Your task to perform on an android device: toggle wifi Image 0: 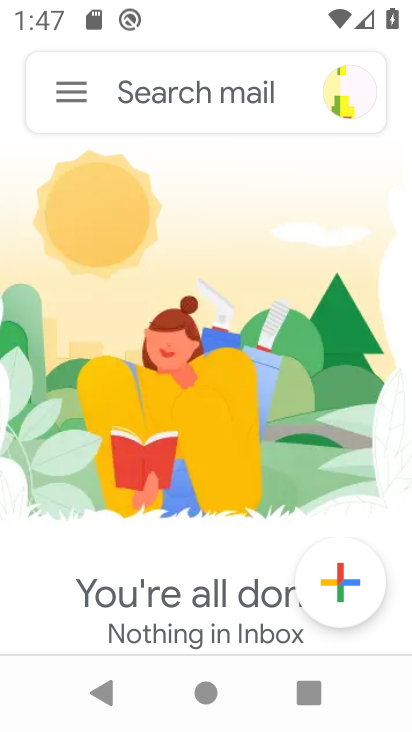
Step 0: press home button
Your task to perform on an android device: toggle wifi Image 1: 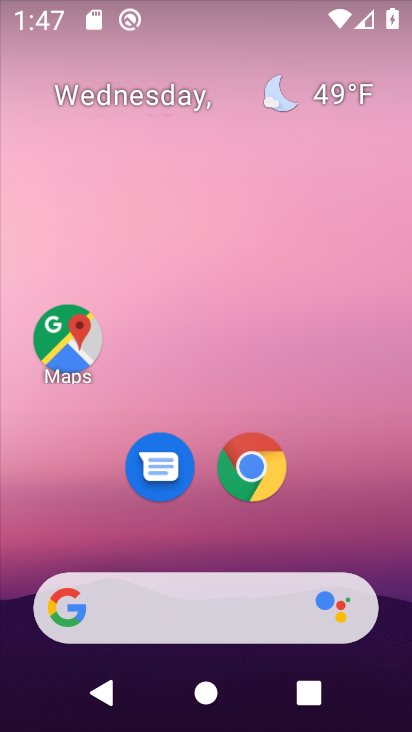
Step 1: drag from (395, 610) to (340, 246)
Your task to perform on an android device: toggle wifi Image 2: 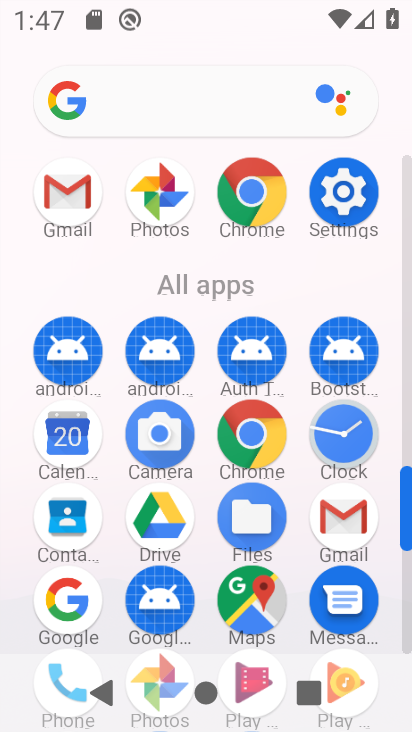
Step 2: click (404, 635)
Your task to perform on an android device: toggle wifi Image 3: 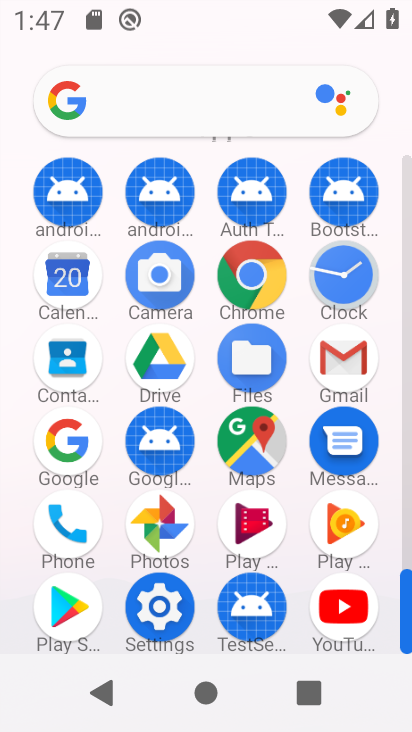
Step 3: click (165, 607)
Your task to perform on an android device: toggle wifi Image 4: 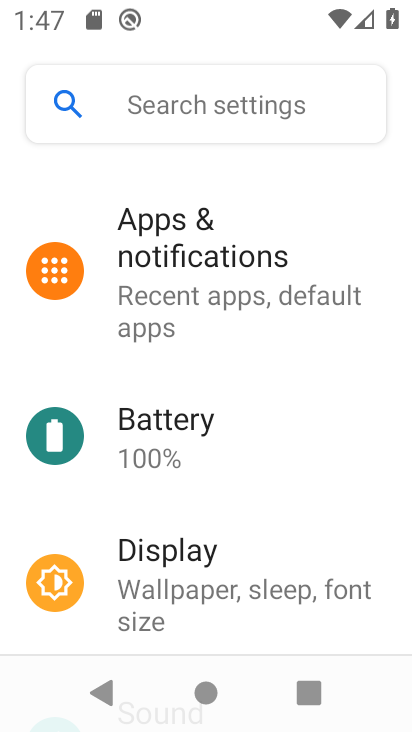
Step 4: drag from (355, 244) to (346, 476)
Your task to perform on an android device: toggle wifi Image 5: 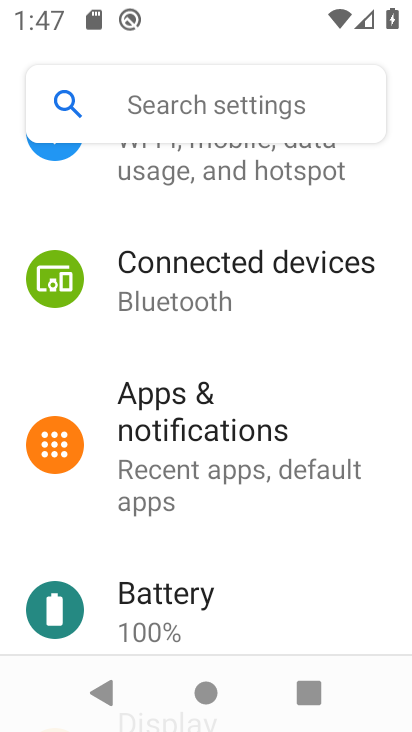
Step 5: drag from (336, 290) to (306, 531)
Your task to perform on an android device: toggle wifi Image 6: 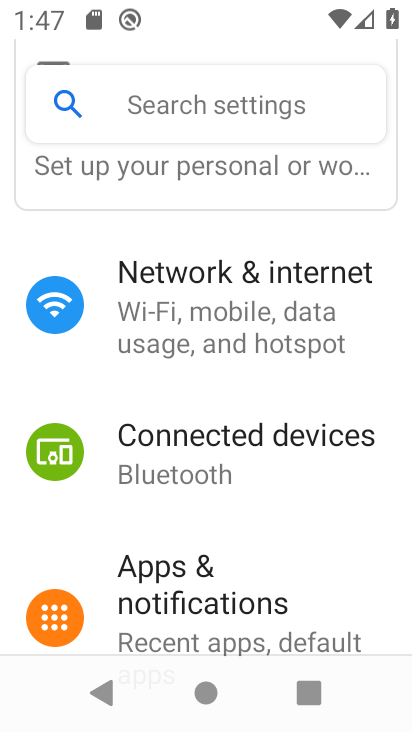
Step 6: click (192, 279)
Your task to perform on an android device: toggle wifi Image 7: 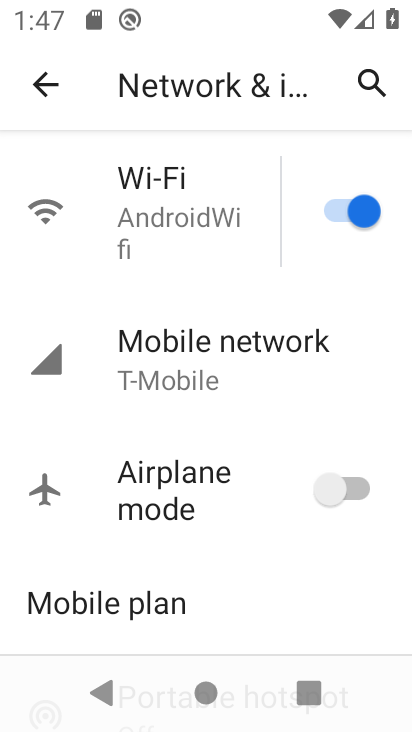
Step 7: click (325, 204)
Your task to perform on an android device: toggle wifi Image 8: 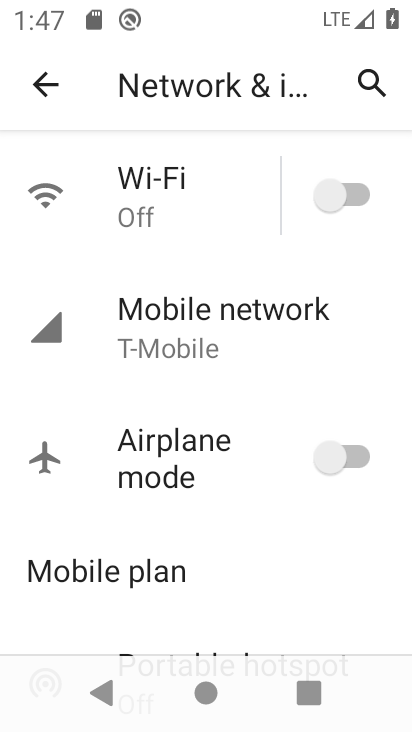
Step 8: task complete